Your task to perform on an android device: Search for Mexican restaurants on Maps Image 0: 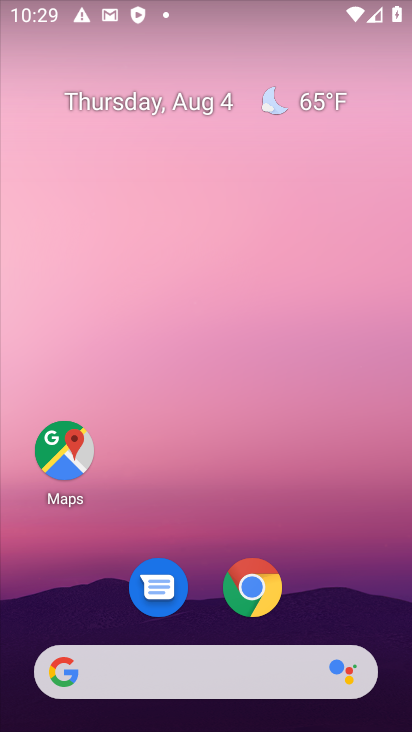
Step 0: drag from (207, 280) to (213, 244)
Your task to perform on an android device: Search for Mexican restaurants on Maps Image 1: 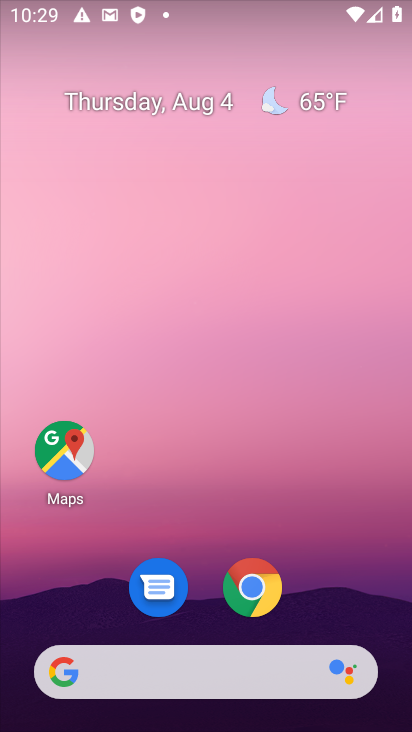
Step 1: drag from (213, 652) to (213, 294)
Your task to perform on an android device: Search for Mexican restaurants on Maps Image 2: 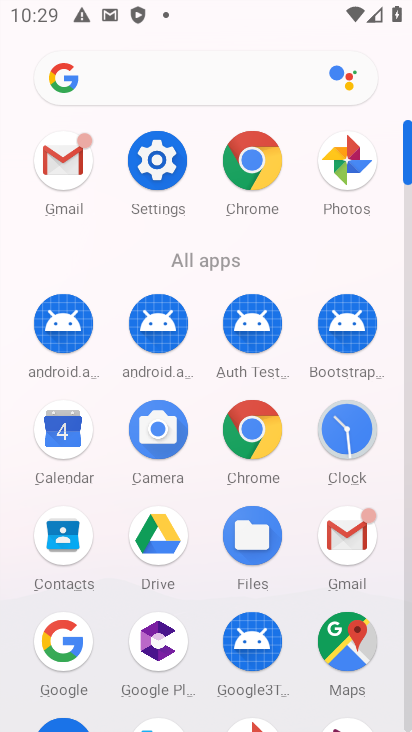
Step 2: click (344, 620)
Your task to perform on an android device: Search for Mexican restaurants on Maps Image 3: 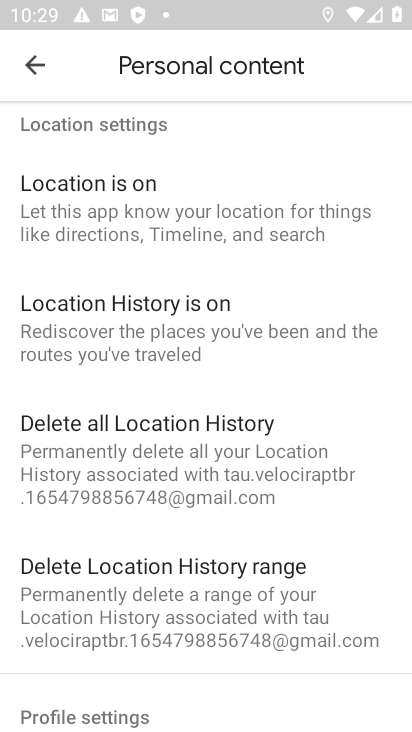
Step 3: click (0, 53)
Your task to perform on an android device: Search for Mexican restaurants on Maps Image 4: 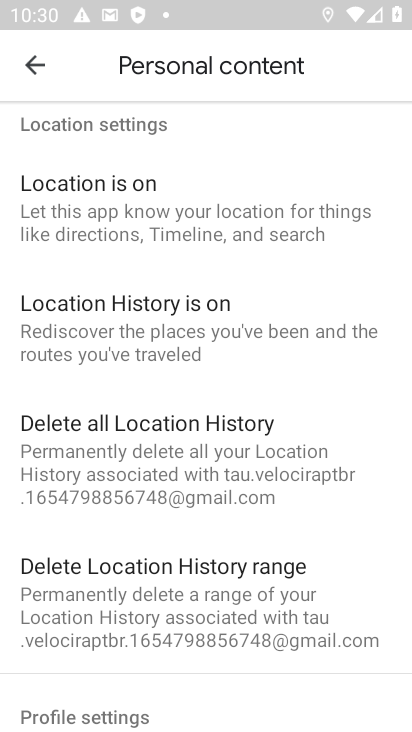
Step 4: click (11, 64)
Your task to perform on an android device: Search for Mexican restaurants on Maps Image 5: 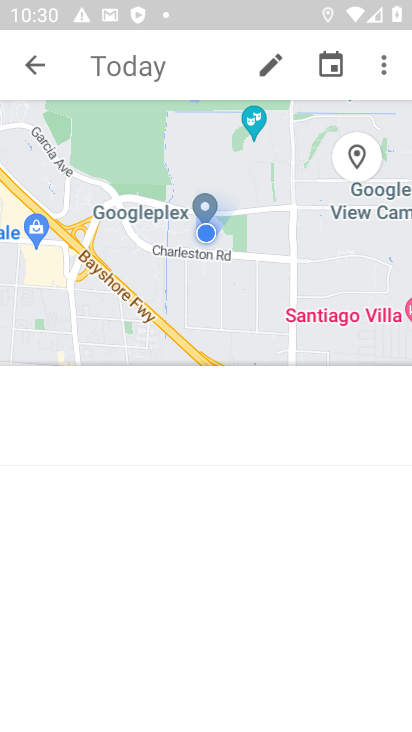
Step 5: click (60, 66)
Your task to perform on an android device: Search for Mexican restaurants on Maps Image 6: 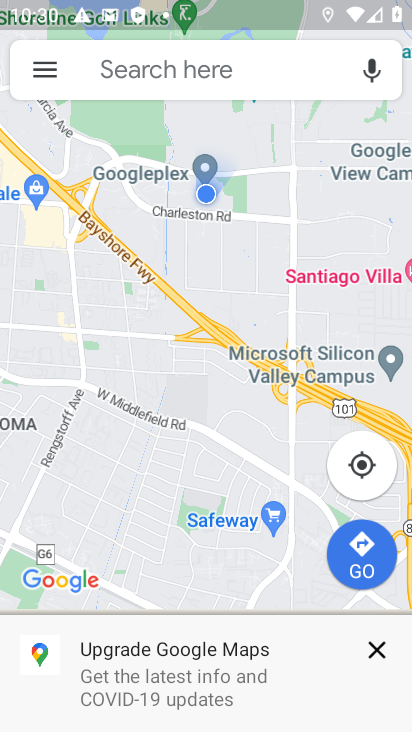
Step 6: click (207, 57)
Your task to perform on an android device: Search for Mexican restaurants on Maps Image 7: 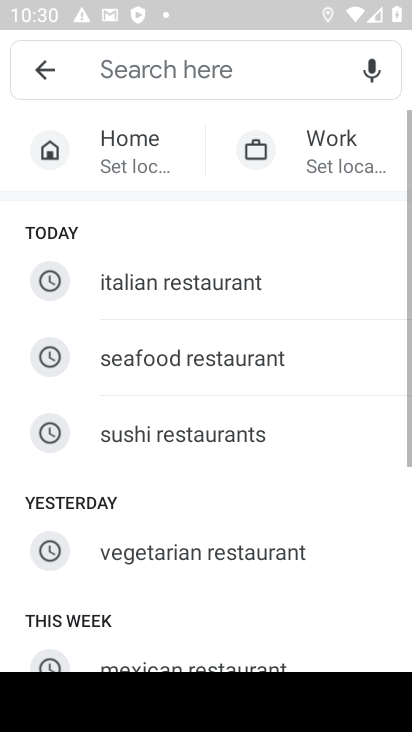
Step 7: drag from (225, 589) to (225, 299)
Your task to perform on an android device: Search for Mexican restaurants on Maps Image 8: 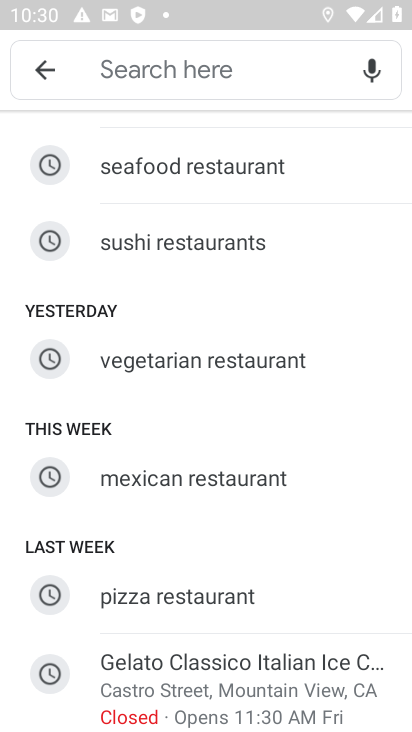
Step 8: click (212, 476)
Your task to perform on an android device: Search for Mexican restaurants on Maps Image 9: 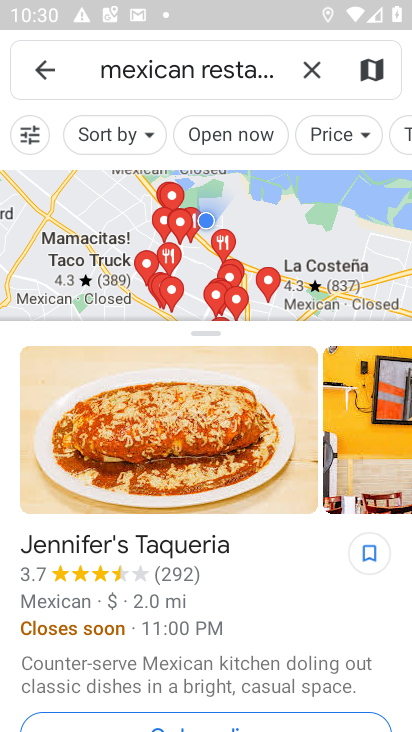
Step 9: task complete